Your task to perform on an android device: Set the phone to "Do not disturb". Image 0: 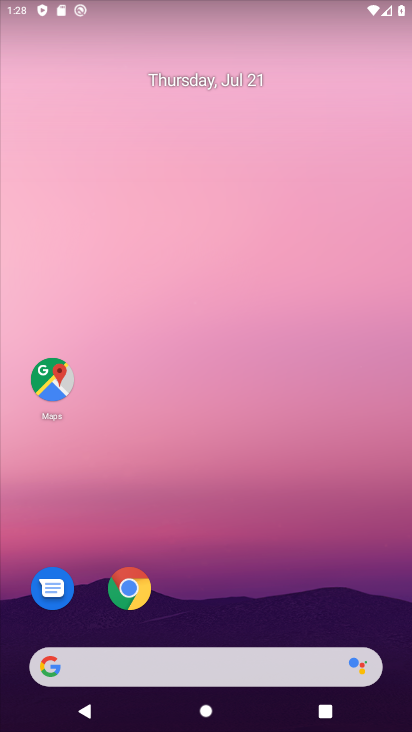
Step 0: click (187, 20)
Your task to perform on an android device: Set the phone to "Do not disturb". Image 1: 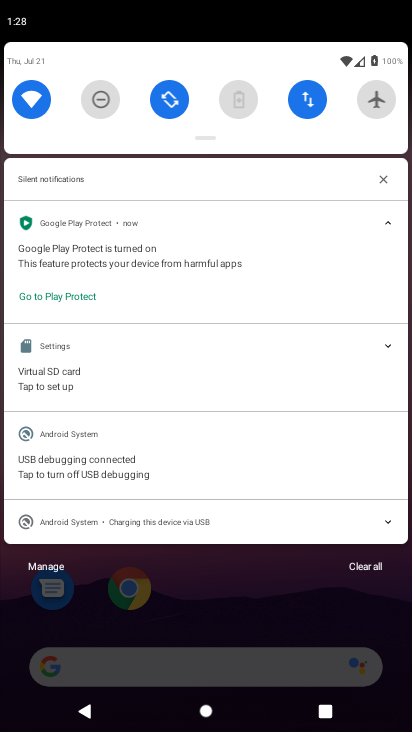
Step 1: click (92, 94)
Your task to perform on an android device: Set the phone to "Do not disturb". Image 2: 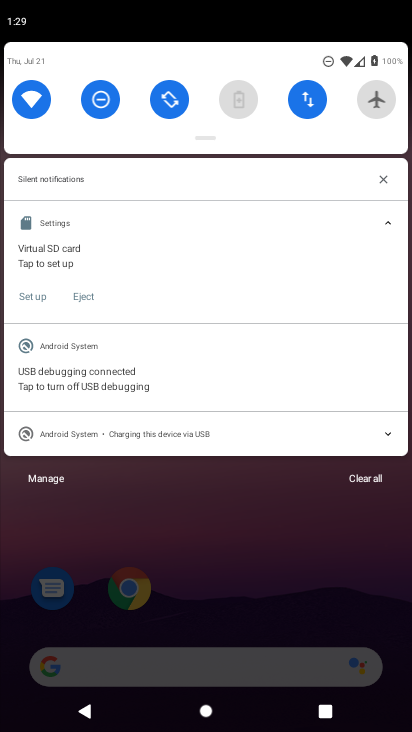
Step 2: task complete